Your task to perform on an android device: turn off notifications settings in the gmail app Image 0: 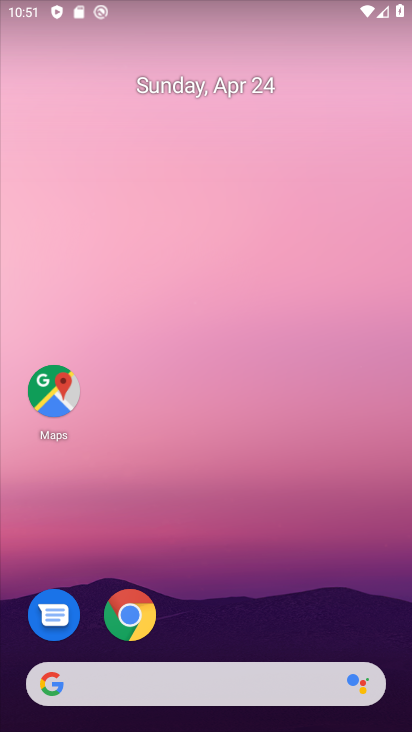
Step 0: drag from (211, 636) to (296, 133)
Your task to perform on an android device: turn off notifications settings in the gmail app Image 1: 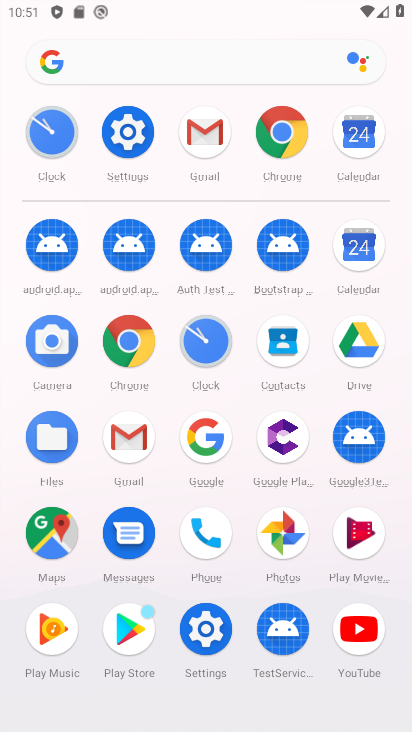
Step 1: click (127, 425)
Your task to perform on an android device: turn off notifications settings in the gmail app Image 2: 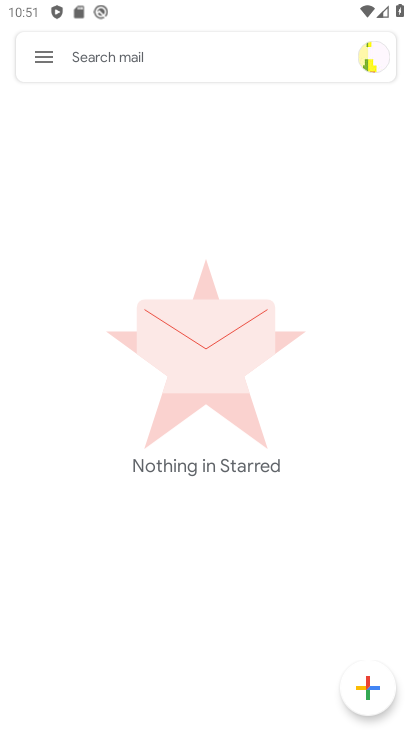
Step 2: click (43, 57)
Your task to perform on an android device: turn off notifications settings in the gmail app Image 3: 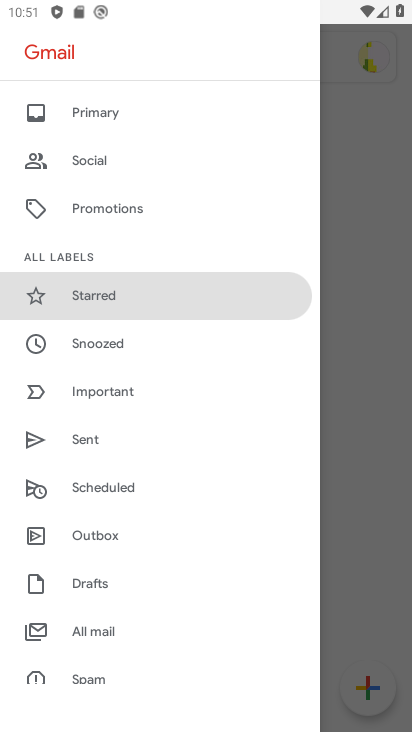
Step 3: drag from (112, 635) to (182, 76)
Your task to perform on an android device: turn off notifications settings in the gmail app Image 4: 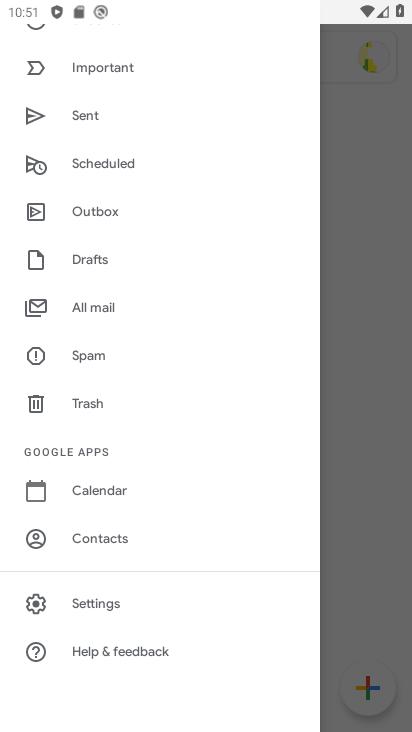
Step 4: click (134, 603)
Your task to perform on an android device: turn off notifications settings in the gmail app Image 5: 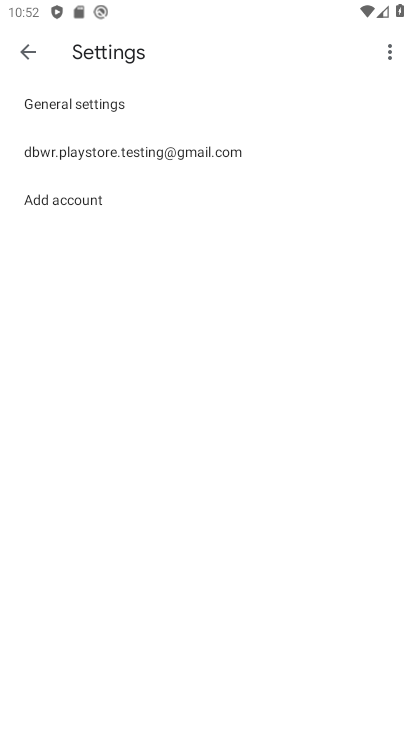
Step 5: click (132, 97)
Your task to perform on an android device: turn off notifications settings in the gmail app Image 6: 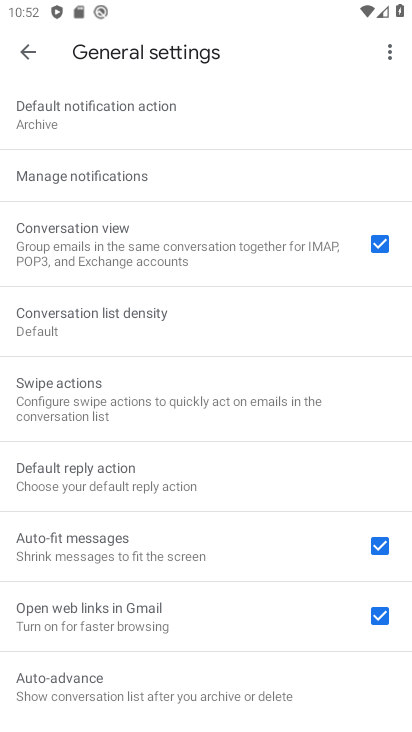
Step 6: click (149, 167)
Your task to perform on an android device: turn off notifications settings in the gmail app Image 7: 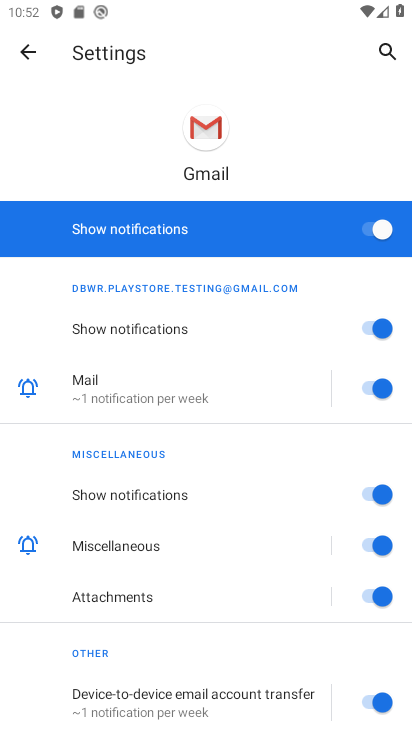
Step 7: click (374, 226)
Your task to perform on an android device: turn off notifications settings in the gmail app Image 8: 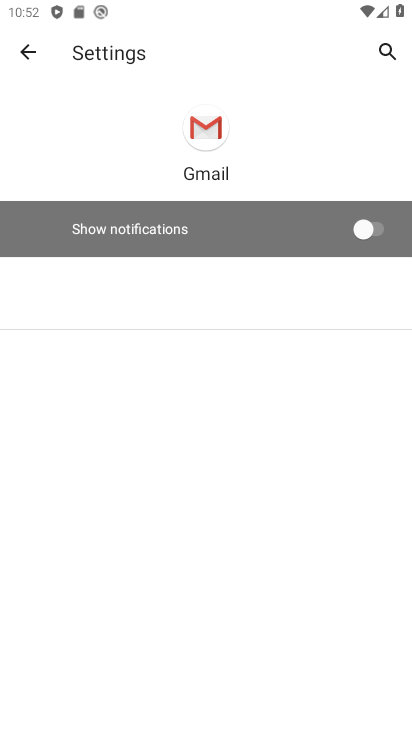
Step 8: task complete